Your task to perform on an android device: Open Google Image 0: 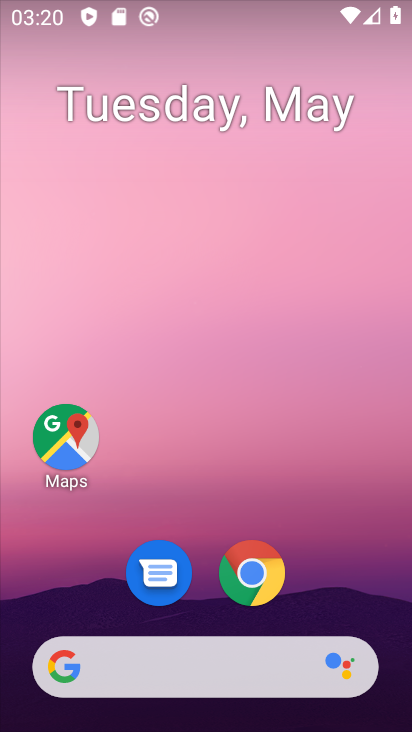
Step 0: drag from (180, 478) to (250, 77)
Your task to perform on an android device: Open Google Image 1: 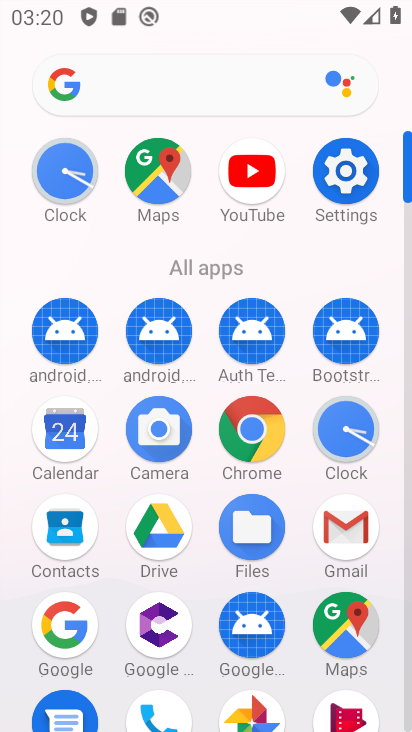
Step 1: click (67, 622)
Your task to perform on an android device: Open Google Image 2: 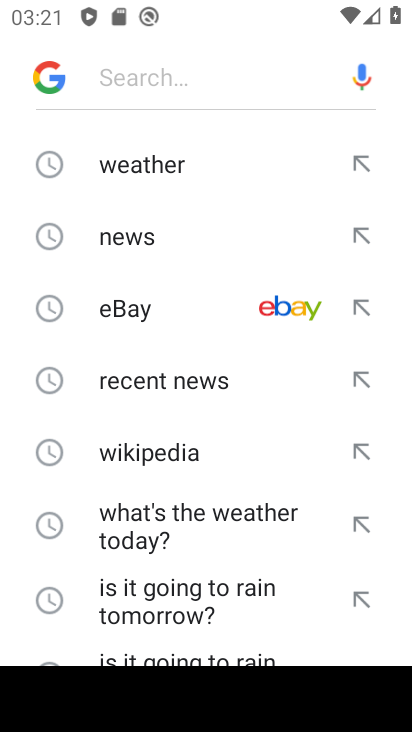
Step 2: task complete